Your task to perform on an android device: Clear all items from cart on target. Add "asus zenbook" to the cart on target, then select checkout. Image 0: 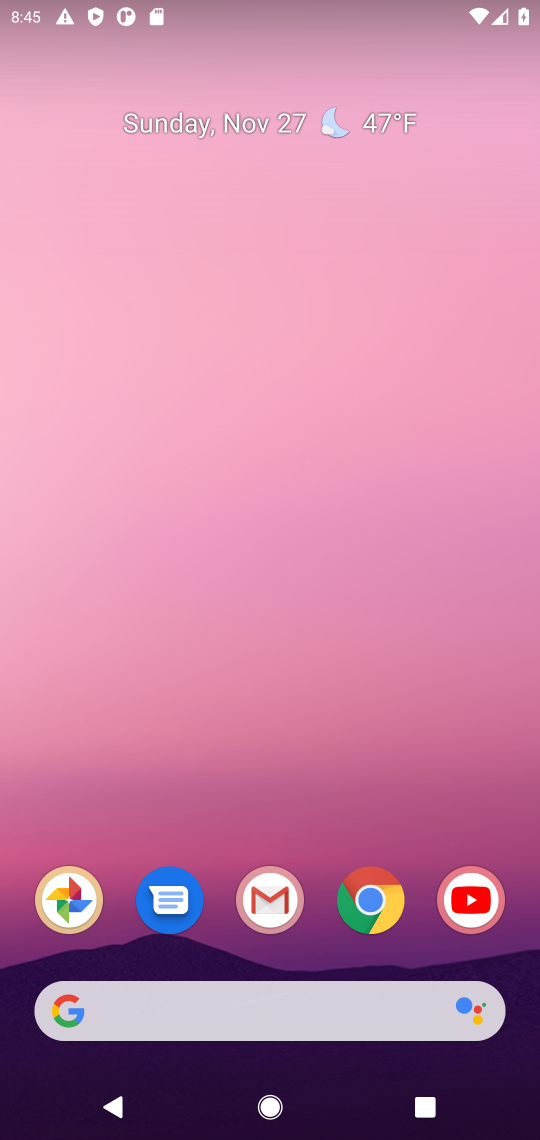
Step 0: click (374, 905)
Your task to perform on an android device: Clear all items from cart on target. Add "asus zenbook" to the cart on target, then select checkout. Image 1: 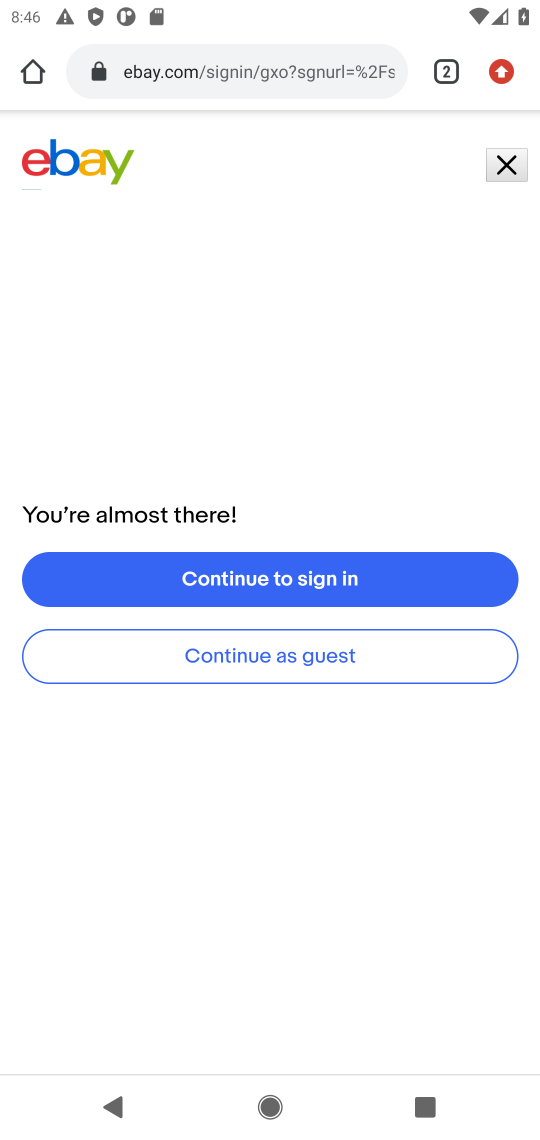
Step 1: click (191, 64)
Your task to perform on an android device: Clear all items from cart on target. Add "asus zenbook" to the cart on target, then select checkout. Image 2: 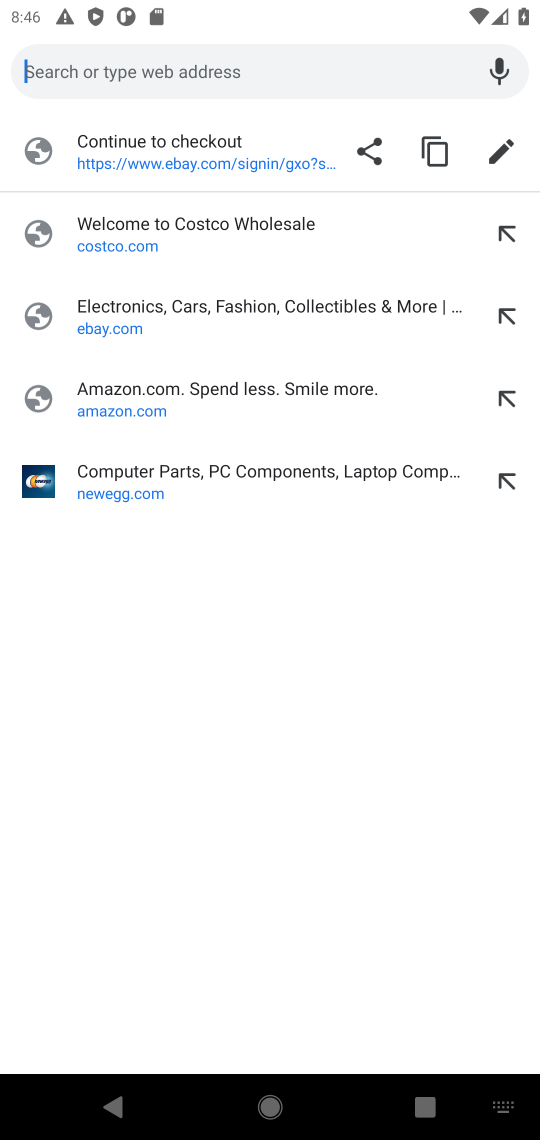
Step 2: type "target.com"
Your task to perform on an android device: Clear all items from cart on target. Add "asus zenbook" to the cart on target, then select checkout. Image 3: 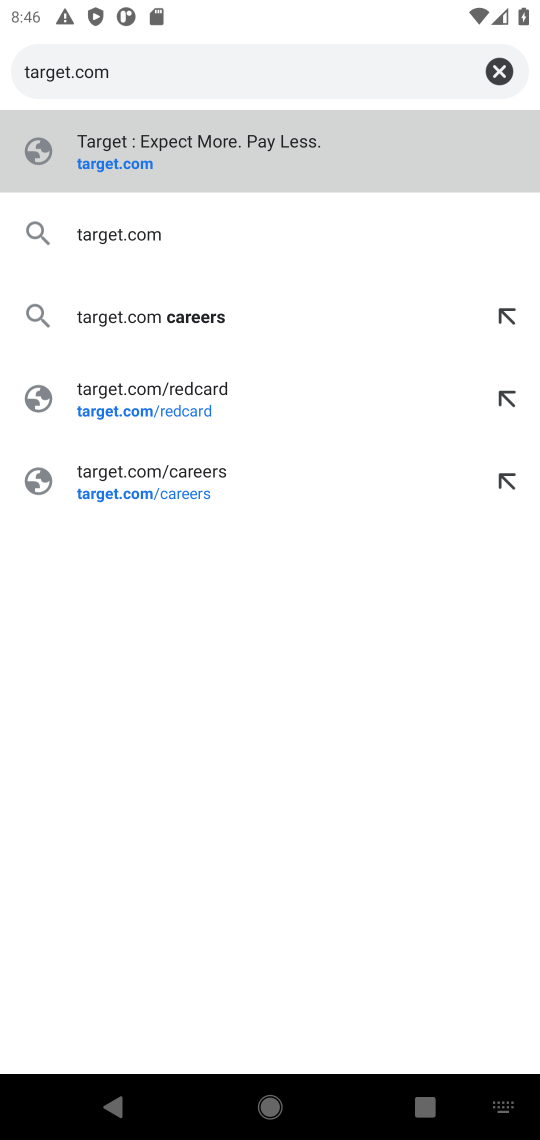
Step 3: click (92, 162)
Your task to perform on an android device: Clear all items from cart on target. Add "asus zenbook" to the cart on target, then select checkout. Image 4: 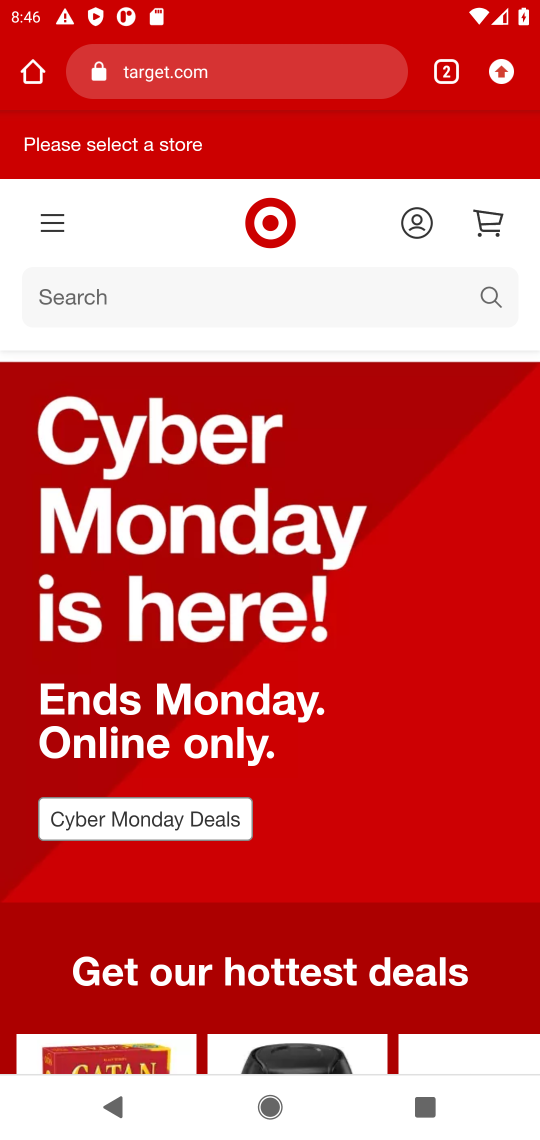
Step 4: click (488, 223)
Your task to perform on an android device: Clear all items from cart on target. Add "asus zenbook" to the cart on target, then select checkout. Image 5: 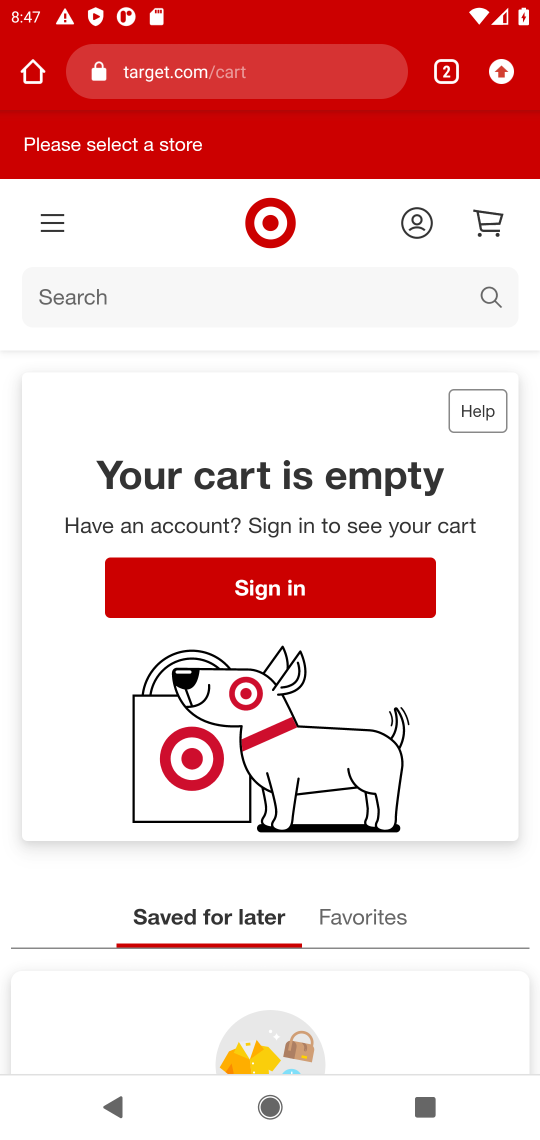
Step 5: click (482, 287)
Your task to perform on an android device: Clear all items from cart on target. Add "asus zenbook" to the cart on target, then select checkout. Image 6: 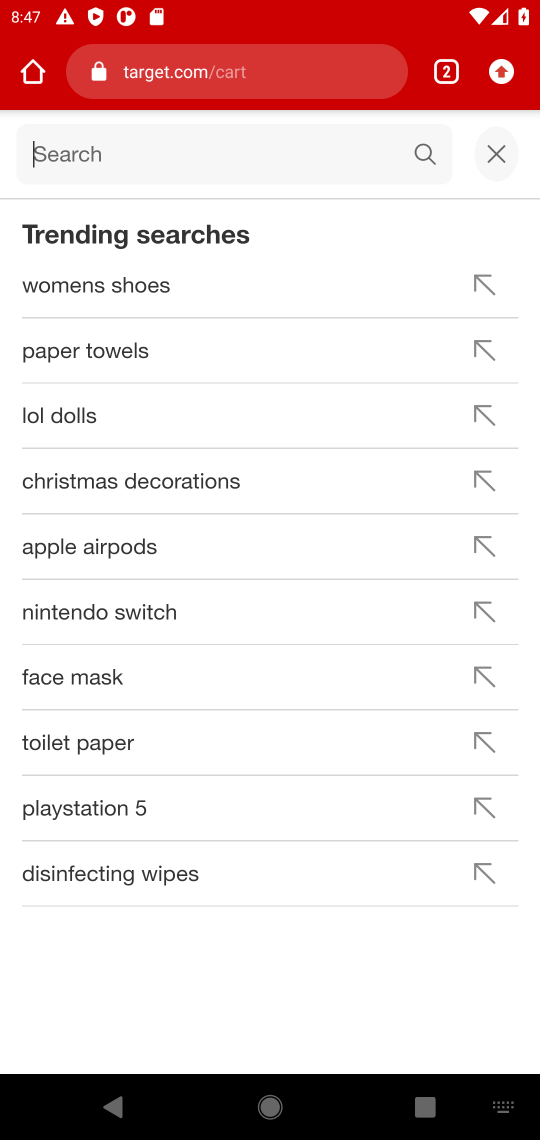
Step 6: type "asus zenbook"
Your task to perform on an android device: Clear all items from cart on target. Add "asus zenbook" to the cart on target, then select checkout. Image 7: 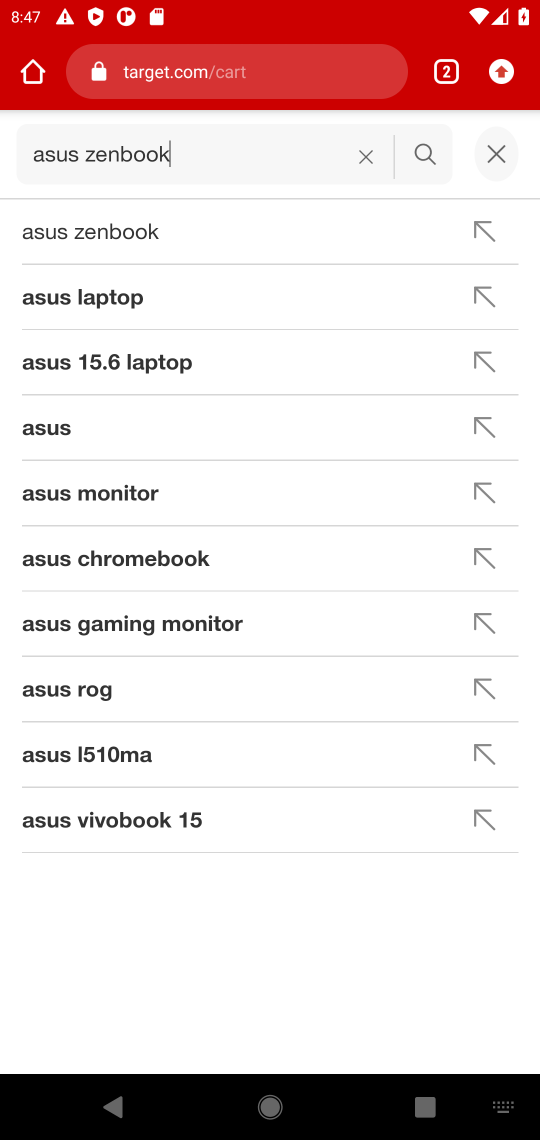
Step 7: click (66, 247)
Your task to perform on an android device: Clear all items from cart on target. Add "asus zenbook" to the cart on target, then select checkout. Image 8: 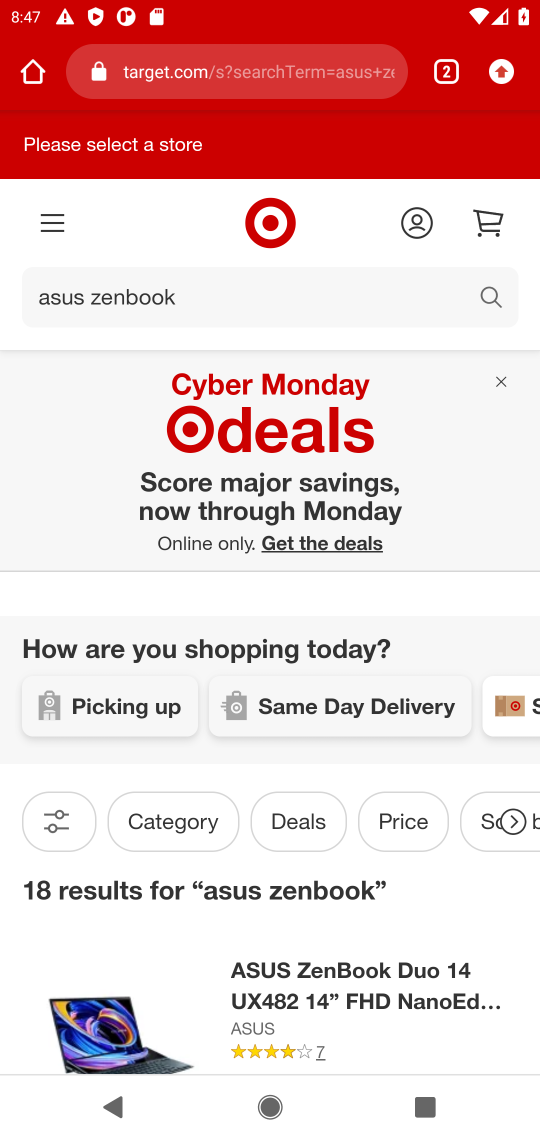
Step 8: drag from (234, 762) to (241, 343)
Your task to perform on an android device: Clear all items from cart on target. Add "asus zenbook" to the cart on target, then select checkout. Image 9: 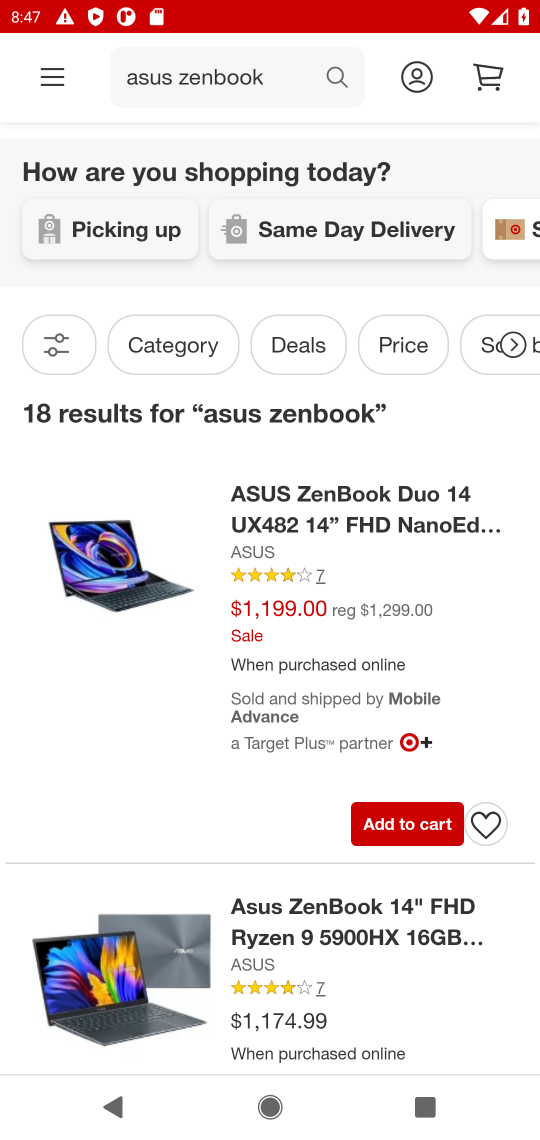
Step 9: click (393, 834)
Your task to perform on an android device: Clear all items from cart on target. Add "asus zenbook" to the cart on target, then select checkout. Image 10: 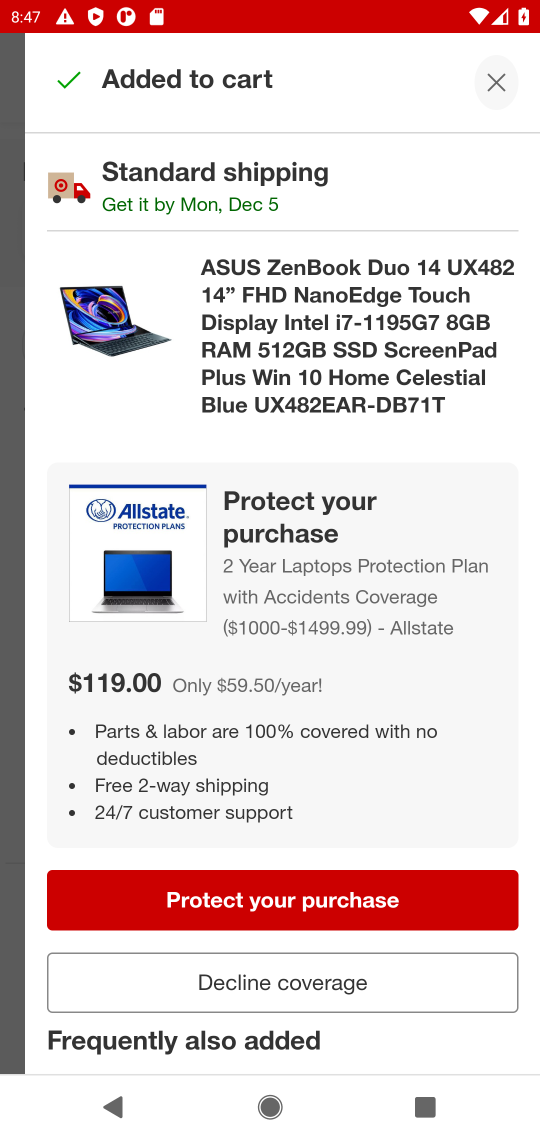
Step 10: click (230, 981)
Your task to perform on an android device: Clear all items from cart on target. Add "asus zenbook" to the cart on target, then select checkout. Image 11: 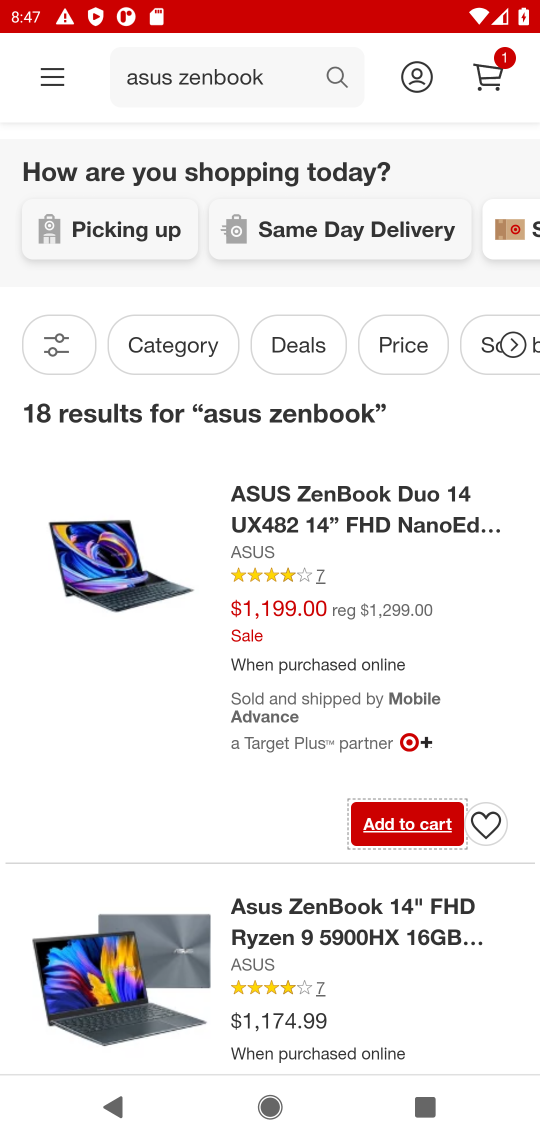
Step 11: click (490, 70)
Your task to perform on an android device: Clear all items from cart on target. Add "asus zenbook" to the cart on target, then select checkout. Image 12: 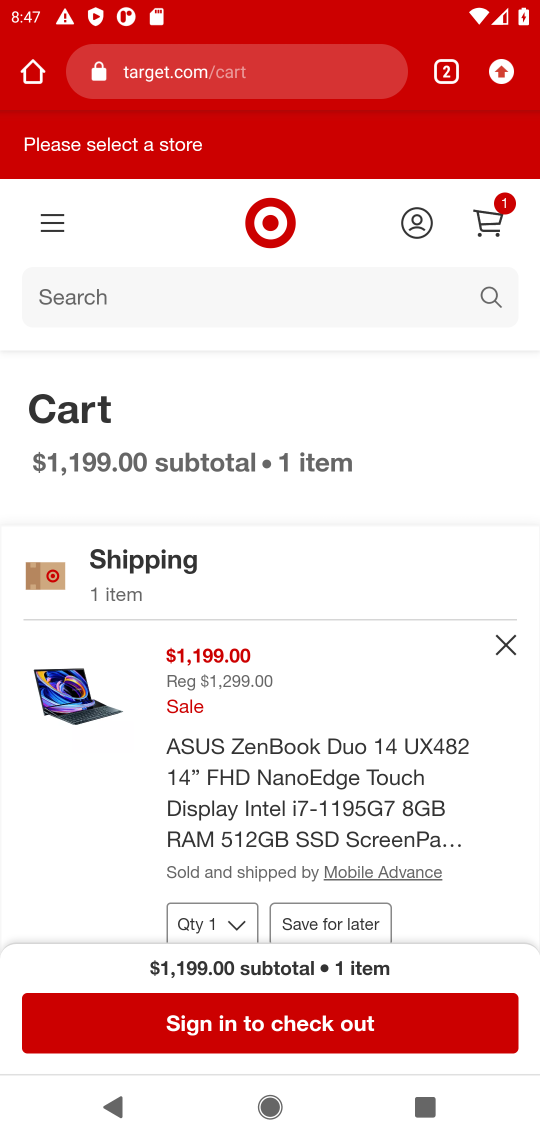
Step 12: click (227, 1040)
Your task to perform on an android device: Clear all items from cart on target. Add "asus zenbook" to the cart on target, then select checkout. Image 13: 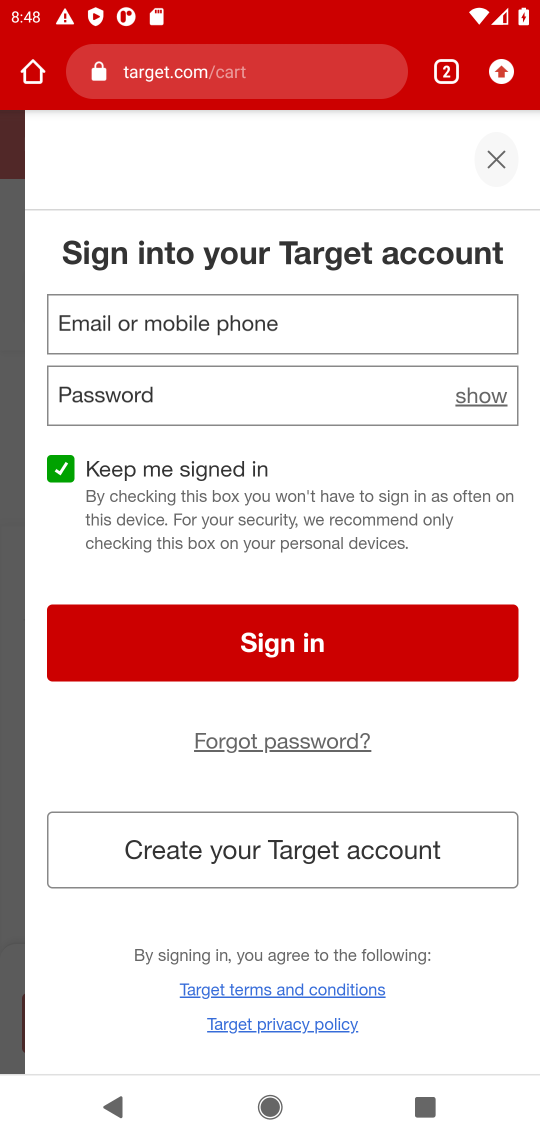
Step 13: task complete